Your task to perform on an android device: turn on improve location accuracy Image 0: 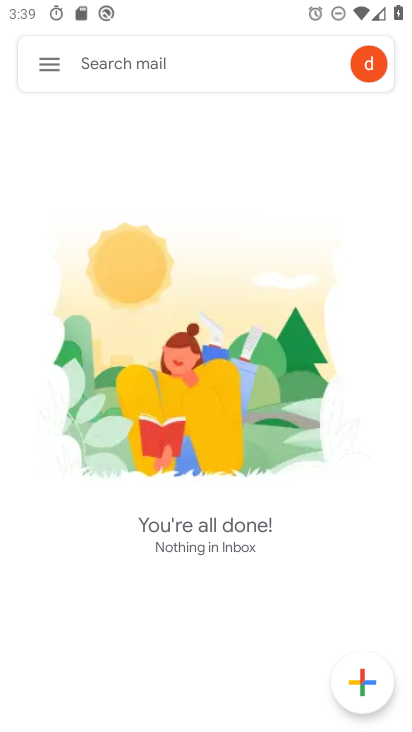
Step 0: press home button
Your task to perform on an android device: turn on improve location accuracy Image 1: 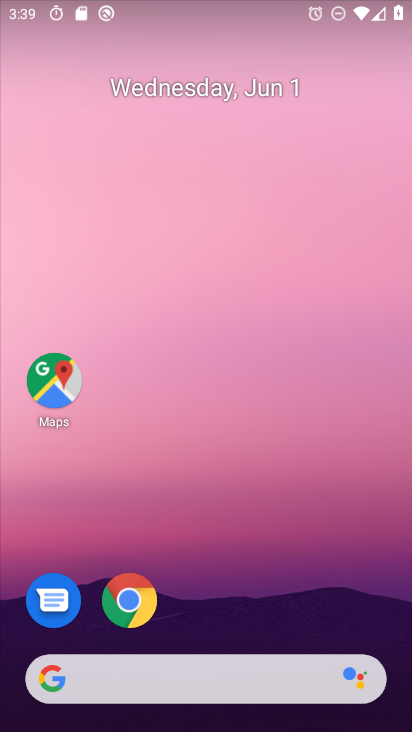
Step 1: drag from (223, 584) to (229, 273)
Your task to perform on an android device: turn on improve location accuracy Image 2: 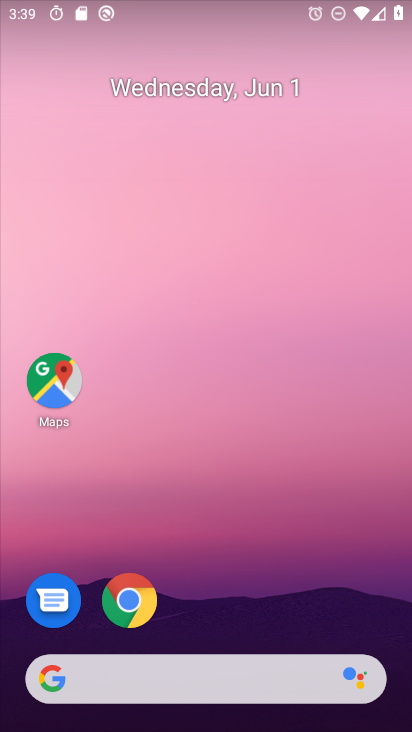
Step 2: drag from (220, 612) to (226, 391)
Your task to perform on an android device: turn on improve location accuracy Image 3: 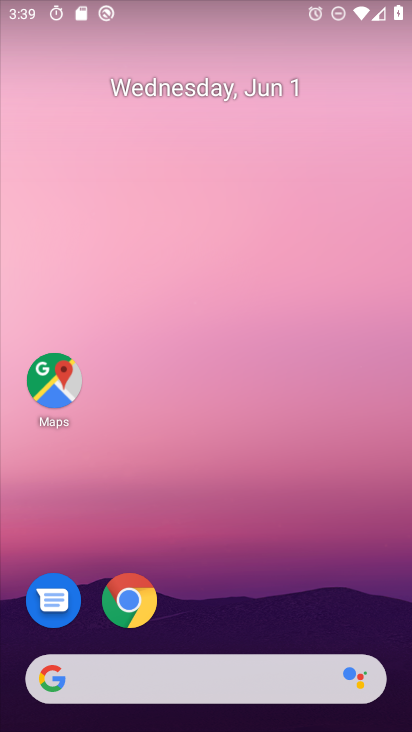
Step 3: drag from (205, 616) to (210, 320)
Your task to perform on an android device: turn on improve location accuracy Image 4: 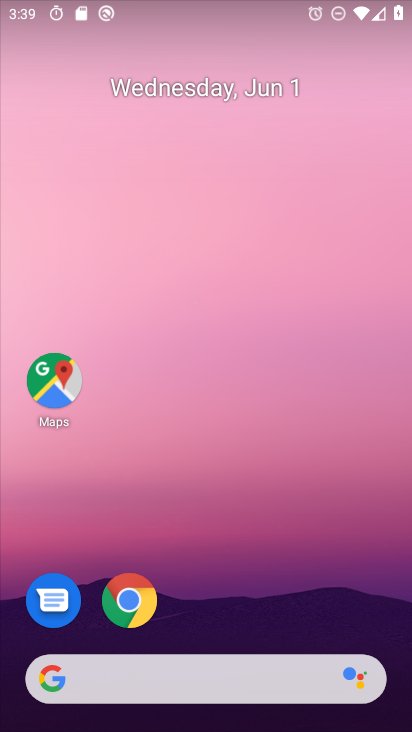
Step 4: drag from (242, 611) to (233, 210)
Your task to perform on an android device: turn on improve location accuracy Image 5: 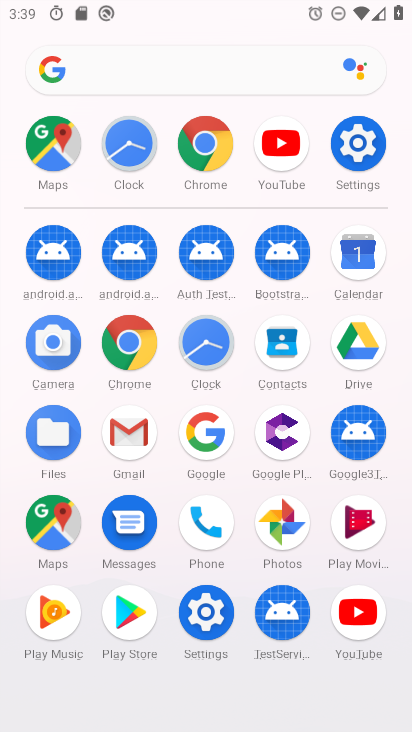
Step 5: click (349, 156)
Your task to perform on an android device: turn on improve location accuracy Image 6: 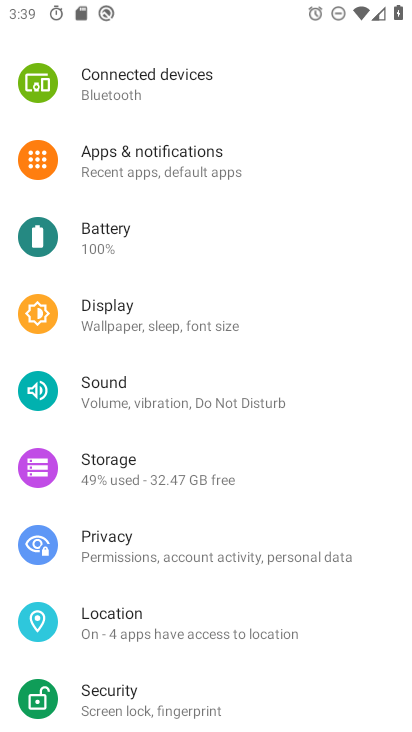
Step 6: drag from (252, 255) to (168, 707)
Your task to perform on an android device: turn on improve location accuracy Image 7: 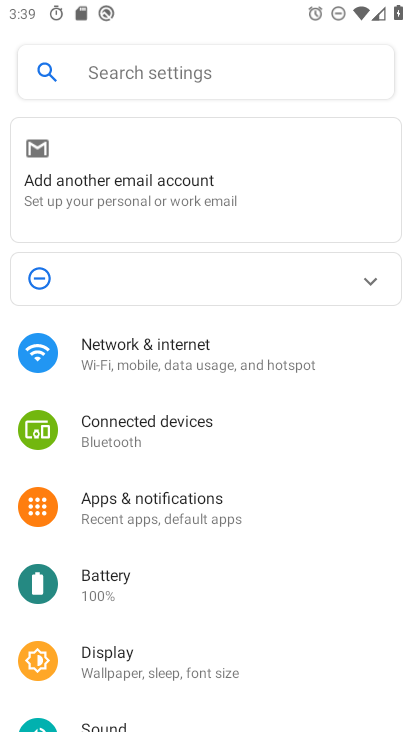
Step 7: drag from (193, 690) to (231, 448)
Your task to perform on an android device: turn on improve location accuracy Image 8: 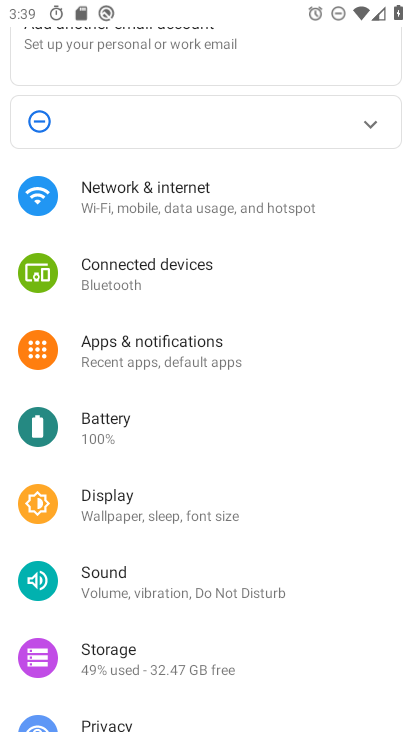
Step 8: drag from (186, 682) to (192, 461)
Your task to perform on an android device: turn on improve location accuracy Image 9: 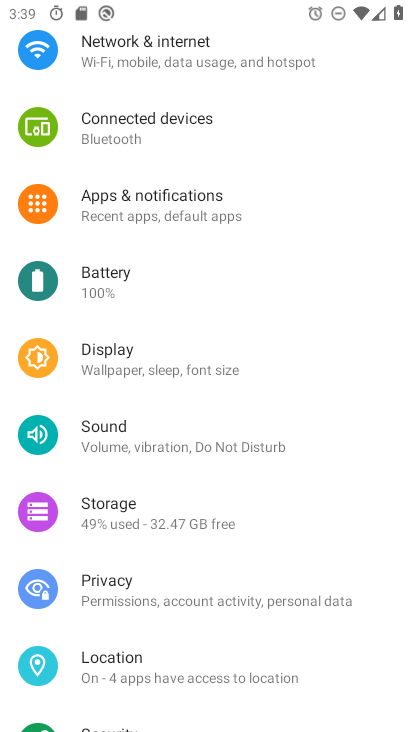
Step 9: click (150, 674)
Your task to perform on an android device: turn on improve location accuracy Image 10: 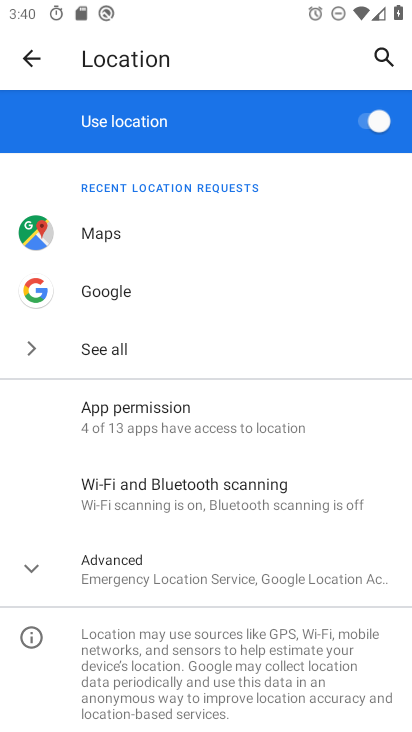
Step 10: click (136, 564)
Your task to perform on an android device: turn on improve location accuracy Image 11: 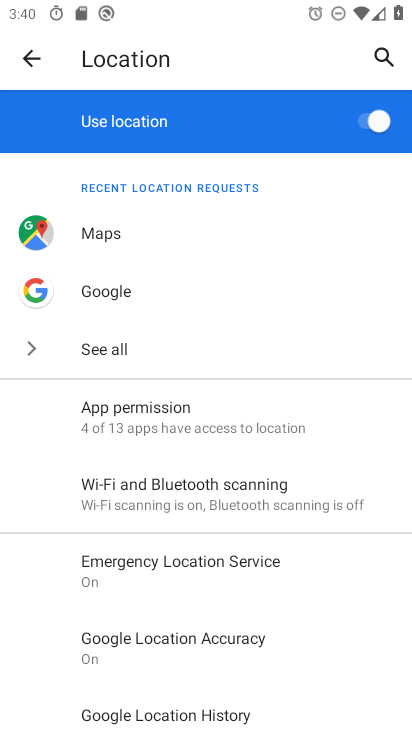
Step 11: drag from (208, 709) to (251, 426)
Your task to perform on an android device: turn on improve location accuracy Image 12: 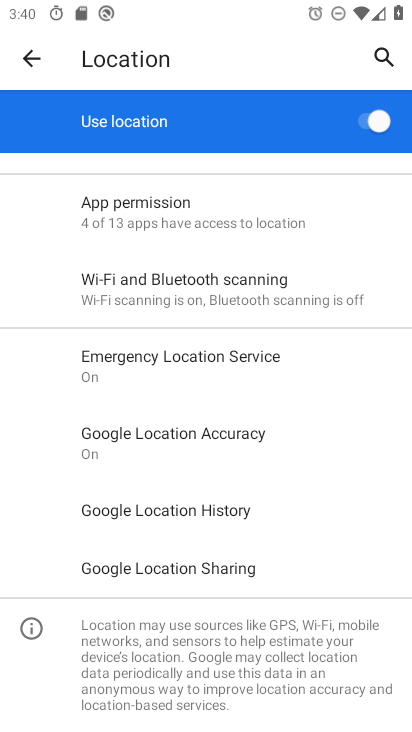
Step 12: click (188, 438)
Your task to perform on an android device: turn on improve location accuracy Image 13: 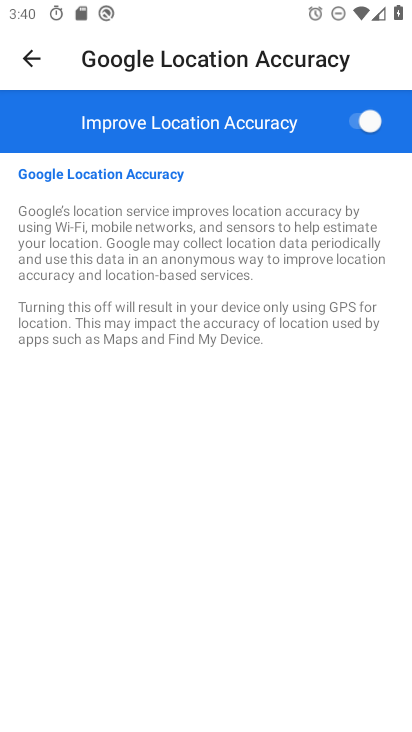
Step 13: task complete